Your task to perform on an android device: check data usage Image 0: 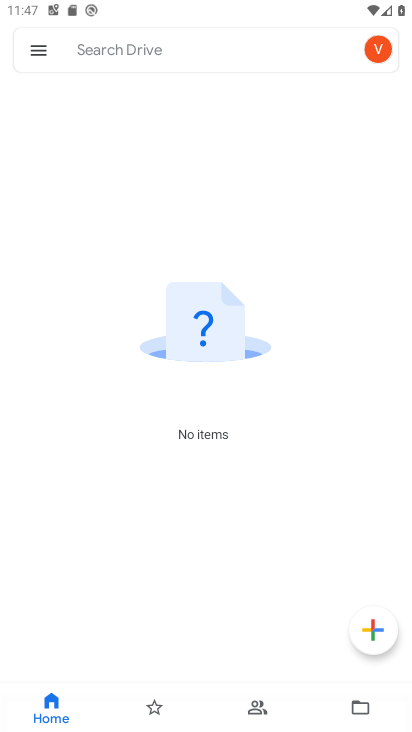
Step 0: press home button
Your task to perform on an android device: check data usage Image 1: 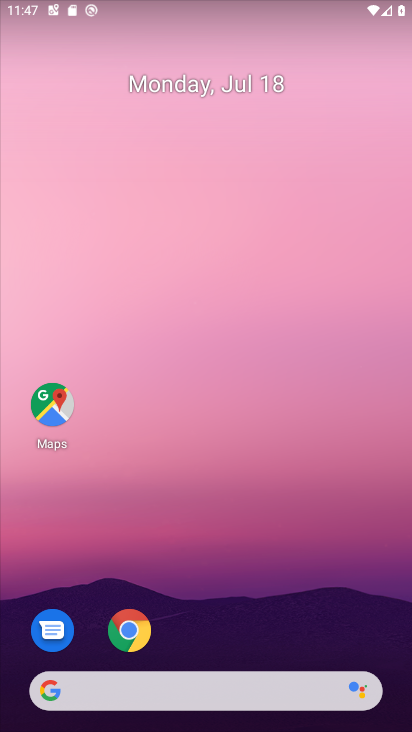
Step 1: drag from (218, 630) to (96, 12)
Your task to perform on an android device: check data usage Image 2: 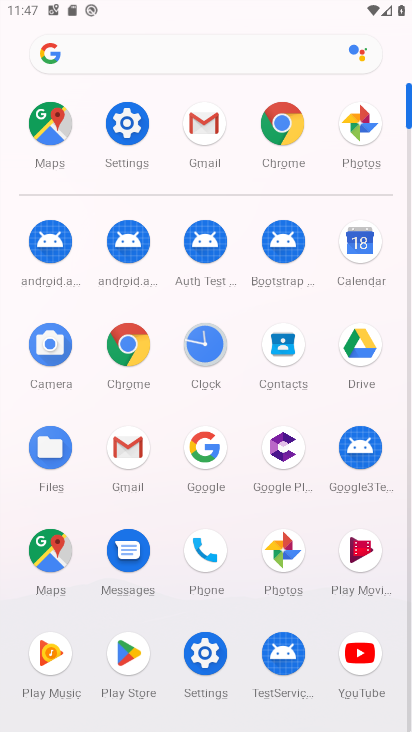
Step 2: click (209, 673)
Your task to perform on an android device: check data usage Image 3: 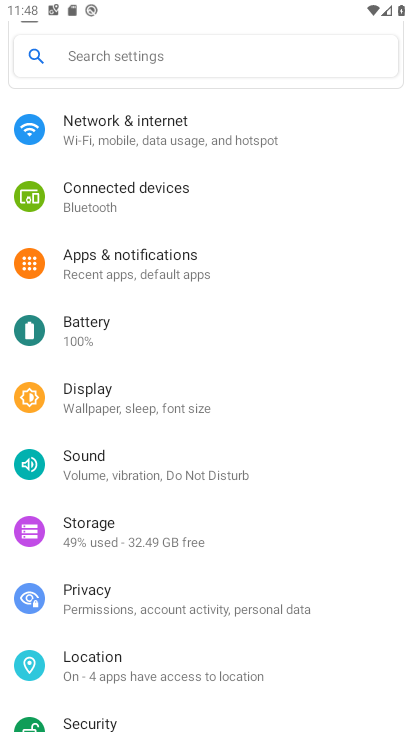
Step 3: click (156, 145)
Your task to perform on an android device: check data usage Image 4: 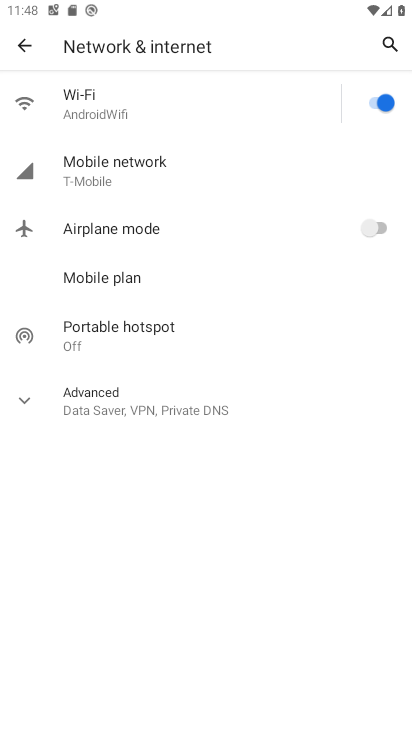
Step 4: click (128, 162)
Your task to perform on an android device: check data usage Image 5: 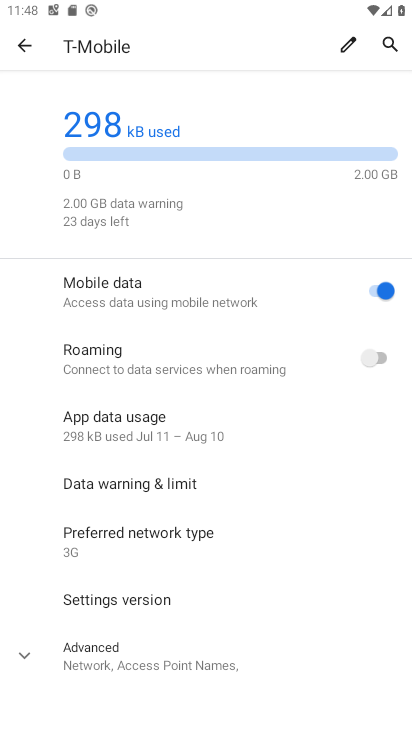
Step 5: click (140, 425)
Your task to perform on an android device: check data usage Image 6: 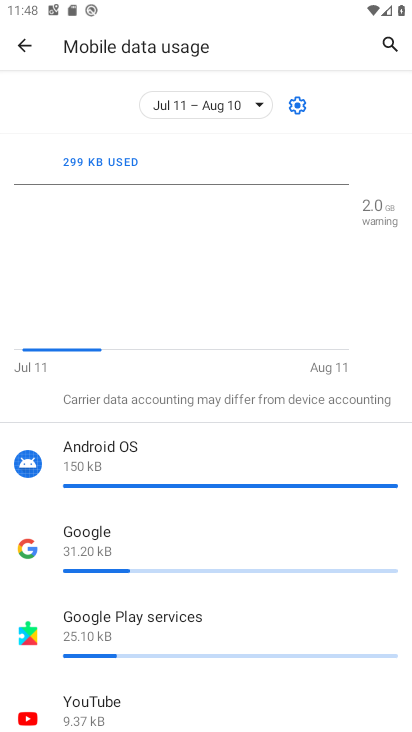
Step 6: task complete